Your task to perform on an android device: Search for pizza restaurants on Maps Image 0: 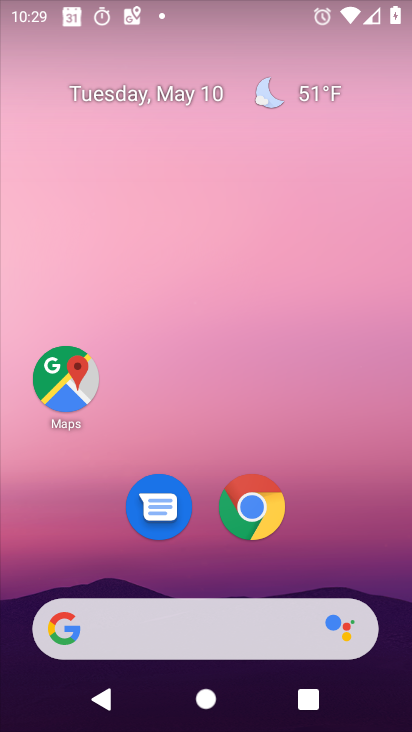
Step 0: click (67, 384)
Your task to perform on an android device: Search for pizza restaurants on Maps Image 1: 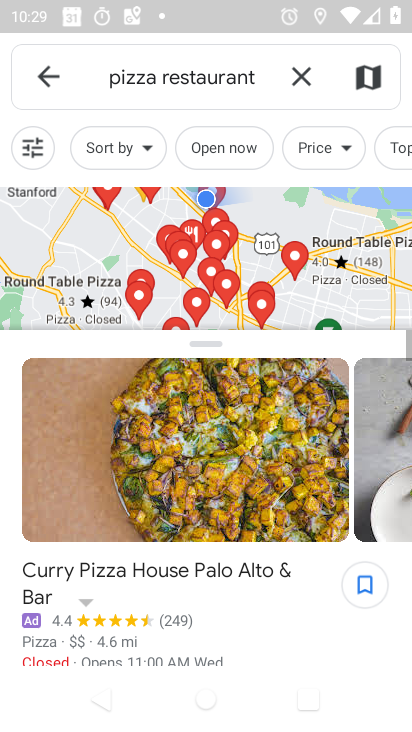
Step 1: task complete